Your task to perform on an android device: toggle priority inbox in the gmail app Image 0: 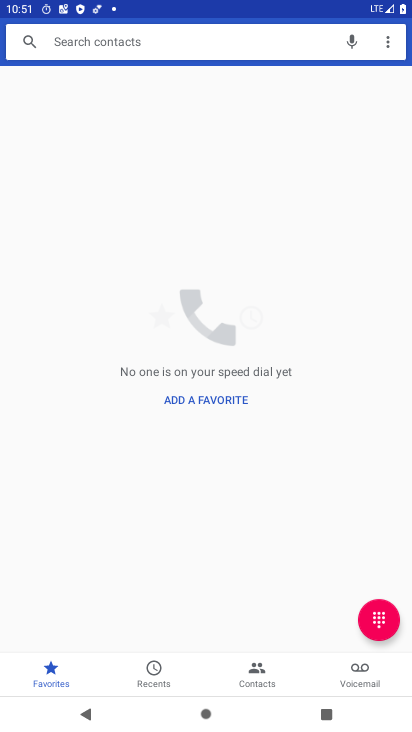
Step 0: press home button
Your task to perform on an android device: toggle priority inbox in the gmail app Image 1: 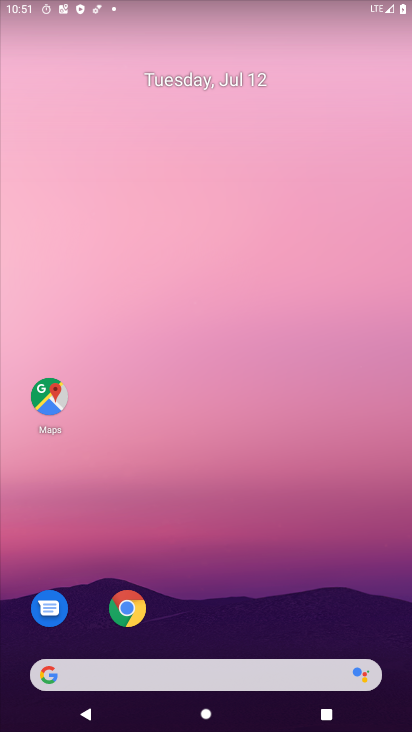
Step 1: drag from (253, 621) to (259, 153)
Your task to perform on an android device: toggle priority inbox in the gmail app Image 2: 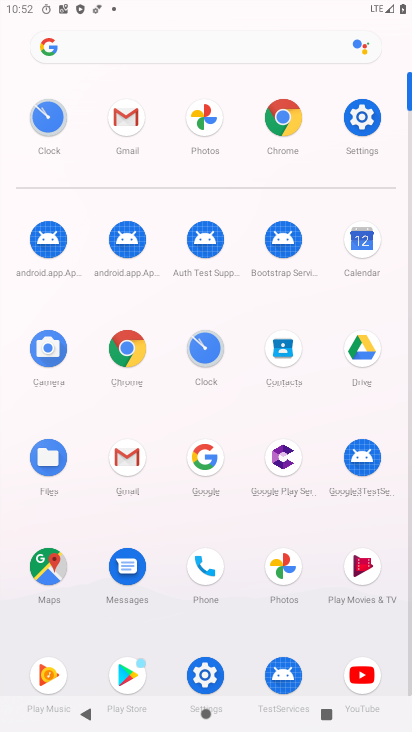
Step 2: click (129, 130)
Your task to perform on an android device: toggle priority inbox in the gmail app Image 3: 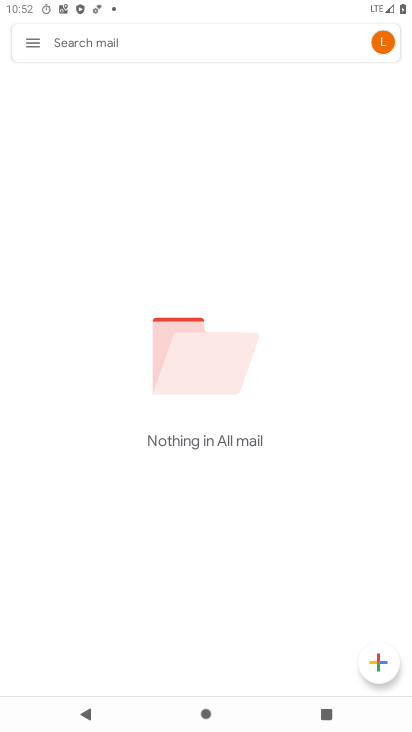
Step 3: click (35, 47)
Your task to perform on an android device: toggle priority inbox in the gmail app Image 4: 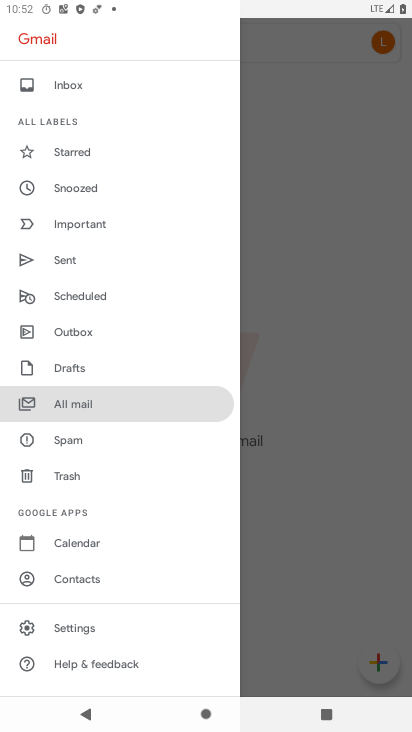
Step 4: click (92, 626)
Your task to perform on an android device: toggle priority inbox in the gmail app Image 5: 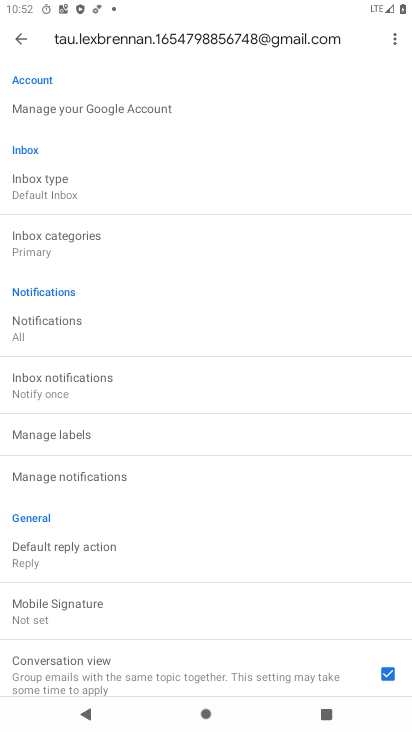
Step 5: click (101, 184)
Your task to perform on an android device: toggle priority inbox in the gmail app Image 6: 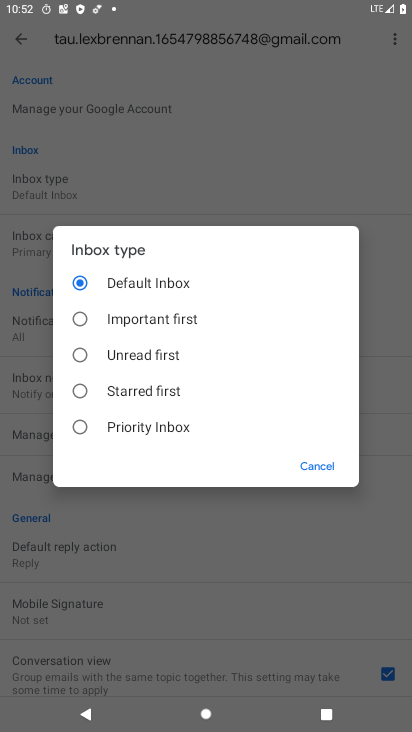
Step 6: click (120, 423)
Your task to perform on an android device: toggle priority inbox in the gmail app Image 7: 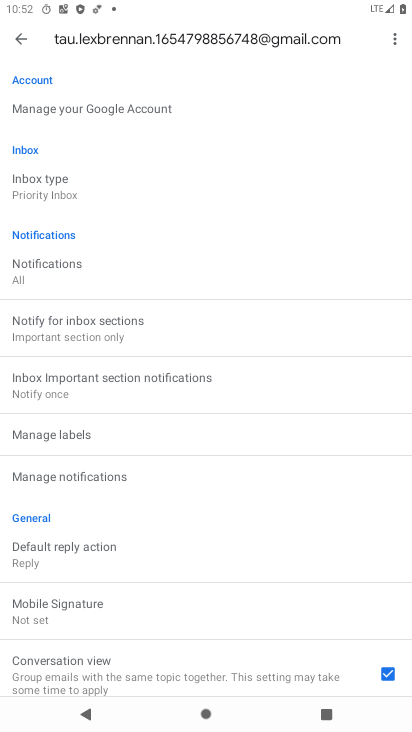
Step 7: task complete